Your task to perform on an android device: turn off airplane mode Image 0: 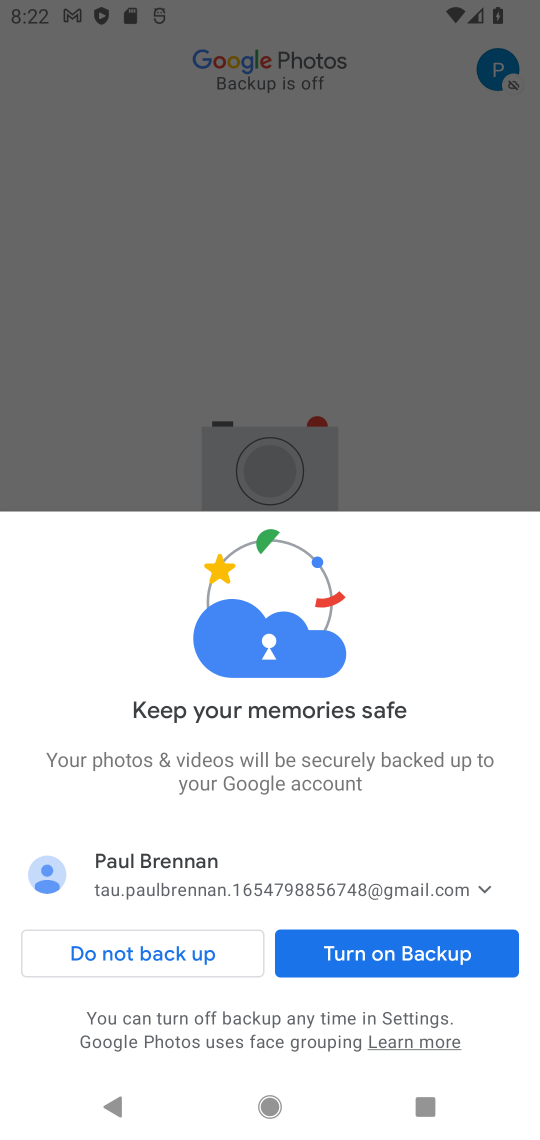
Step 0: press home button
Your task to perform on an android device: turn off airplane mode Image 1: 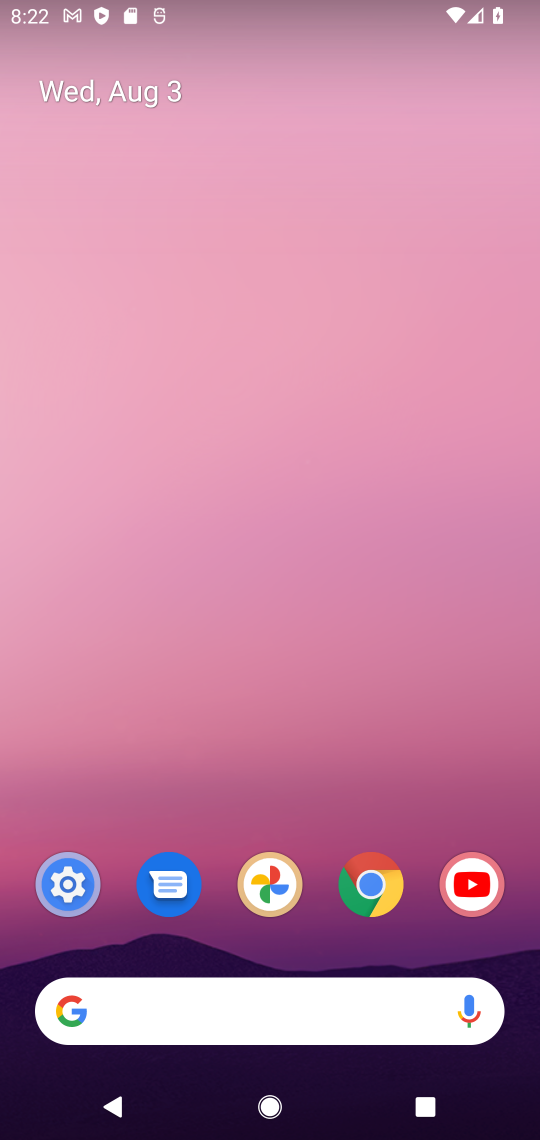
Step 1: drag from (242, 817) to (382, 182)
Your task to perform on an android device: turn off airplane mode Image 2: 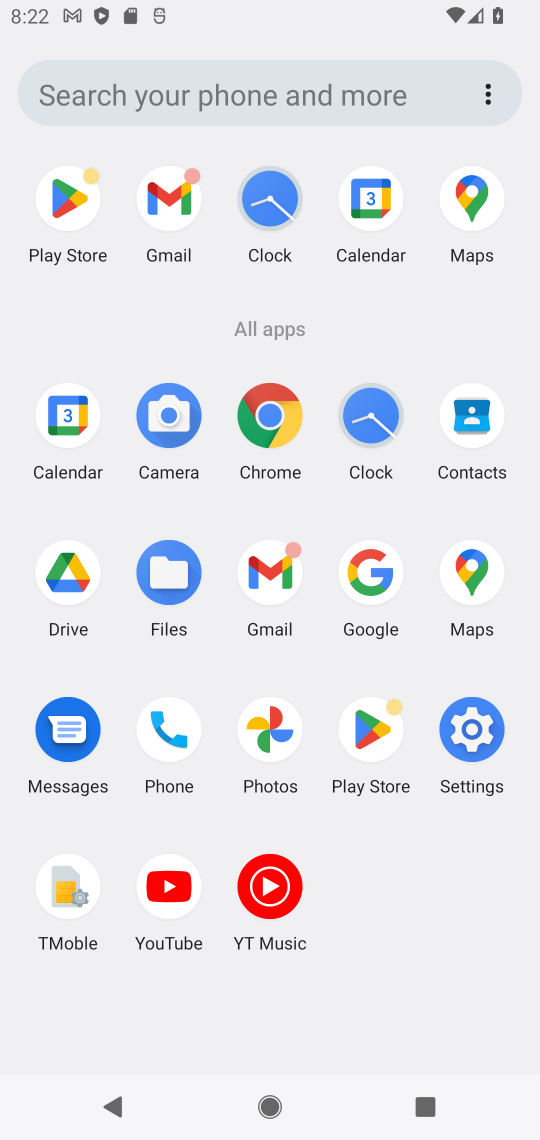
Step 2: click (470, 737)
Your task to perform on an android device: turn off airplane mode Image 3: 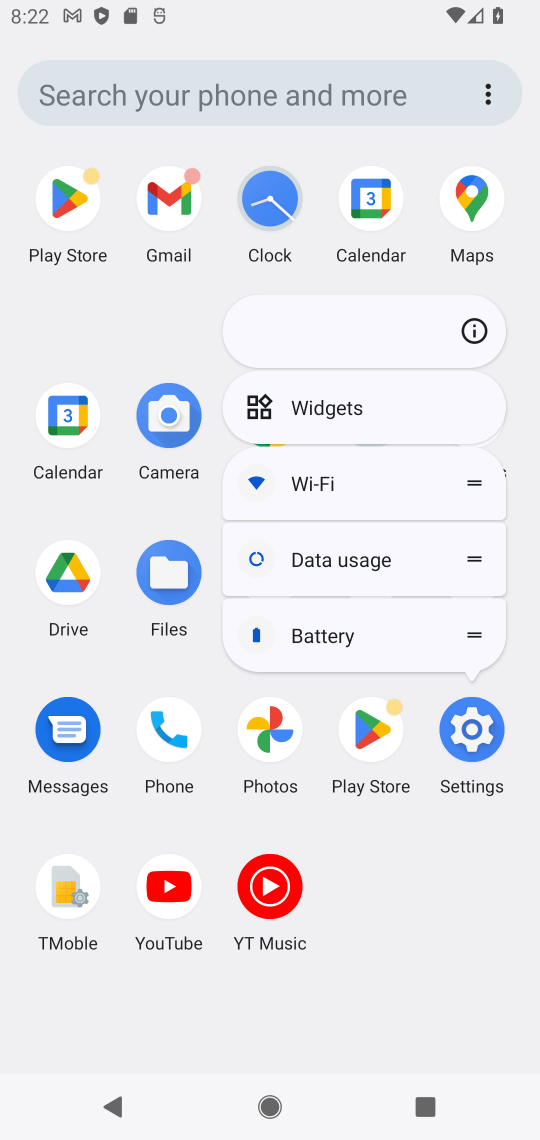
Step 3: click (467, 734)
Your task to perform on an android device: turn off airplane mode Image 4: 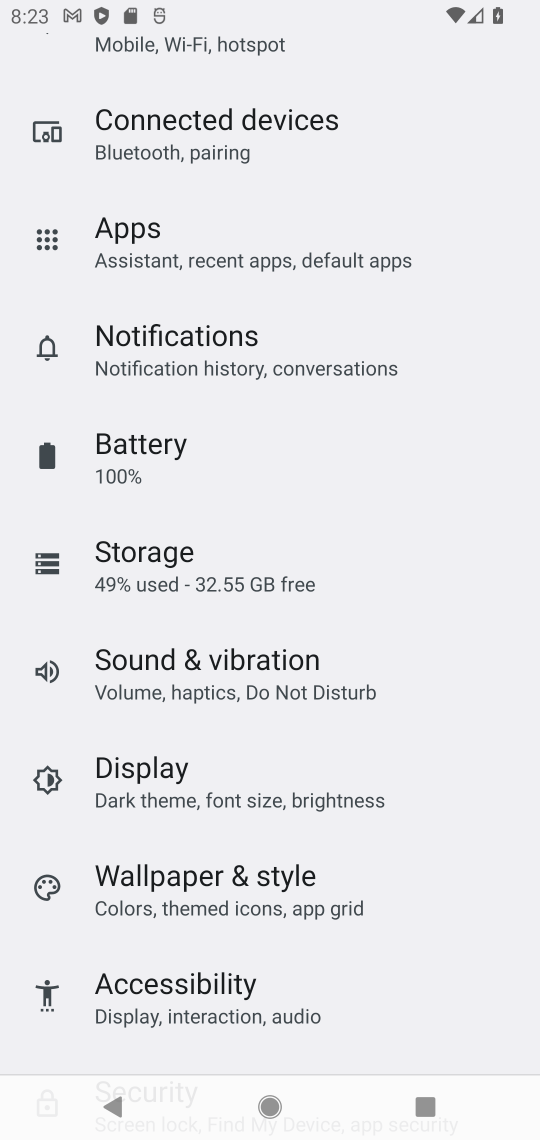
Step 4: drag from (213, 189) to (213, 1018)
Your task to perform on an android device: turn off airplane mode Image 5: 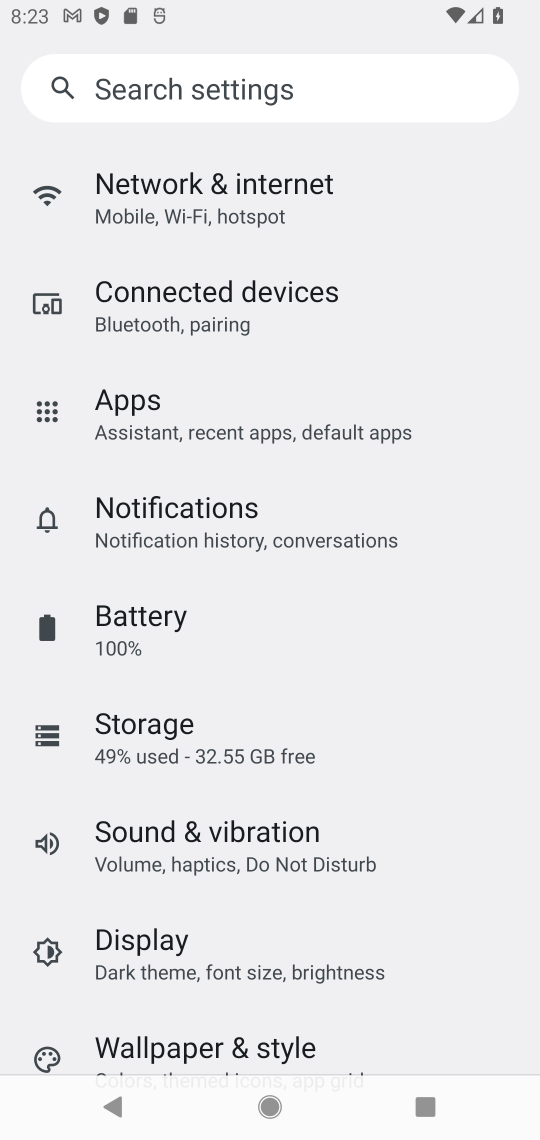
Step 5: click (251, 198)
Your task to perform on an android device: turn off airplane mode Image 6: 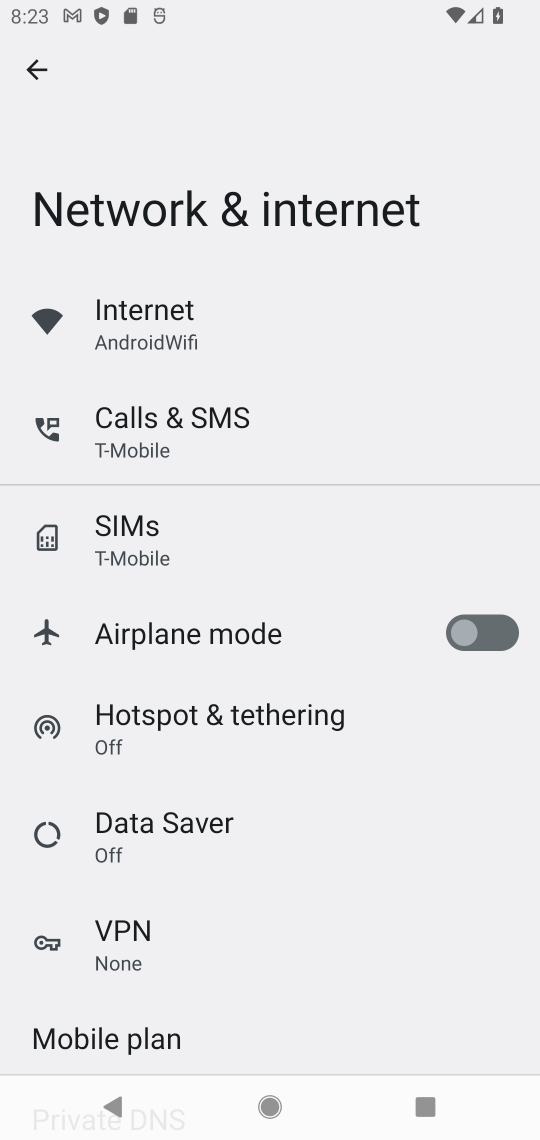
Step 6: click (488, 631)
Your task to perform on an android device: turn off airplane mode Image 7: 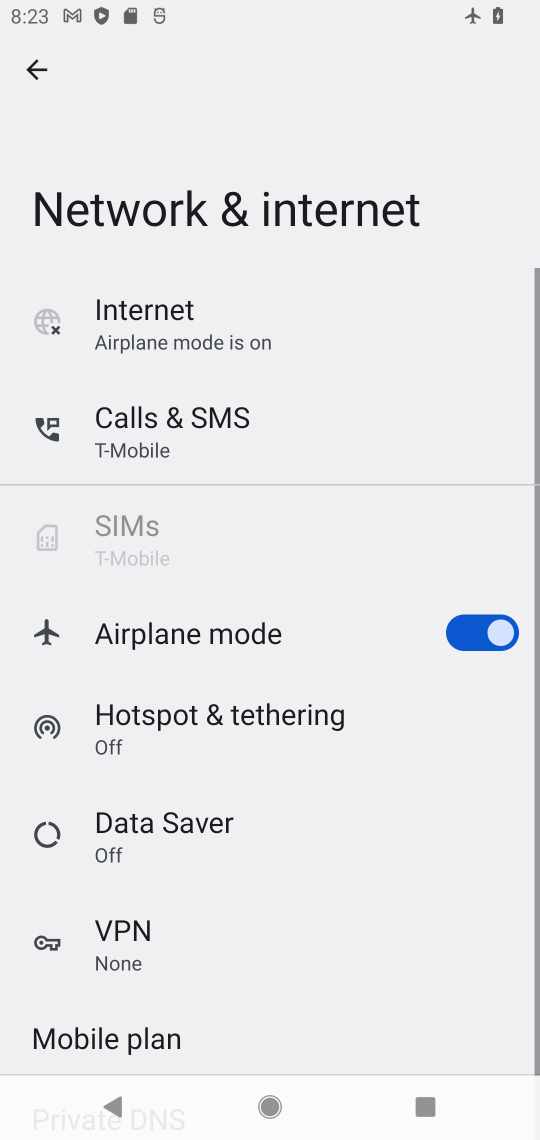
Step 7: click (495, 641)
Your task to perform on an android device: turn off airplane mode Image 8: 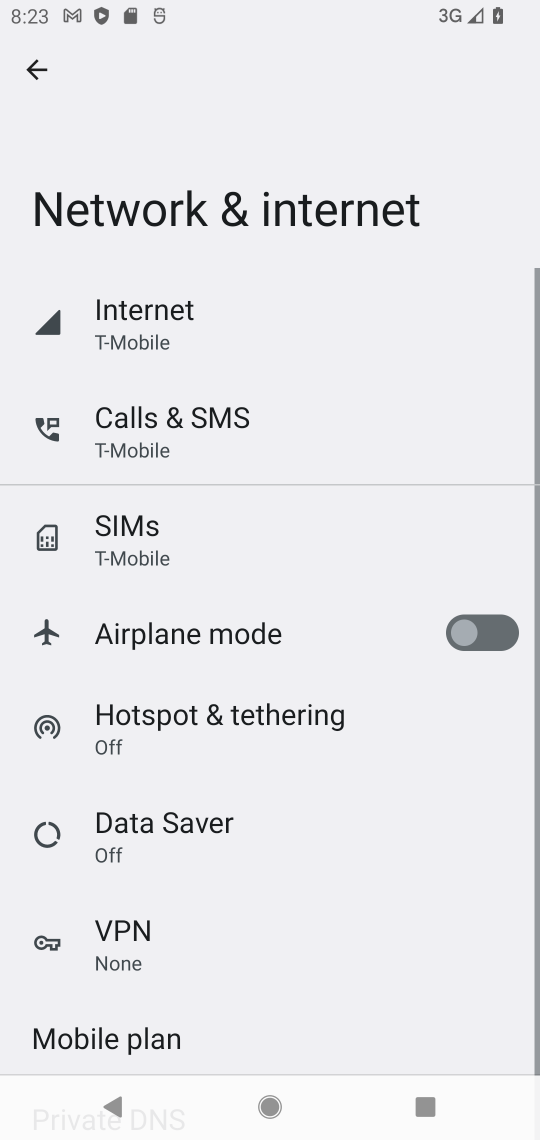
Step 8: task complete